Your task to perform on an android device: search for starred emails in the gmail app Image 0: 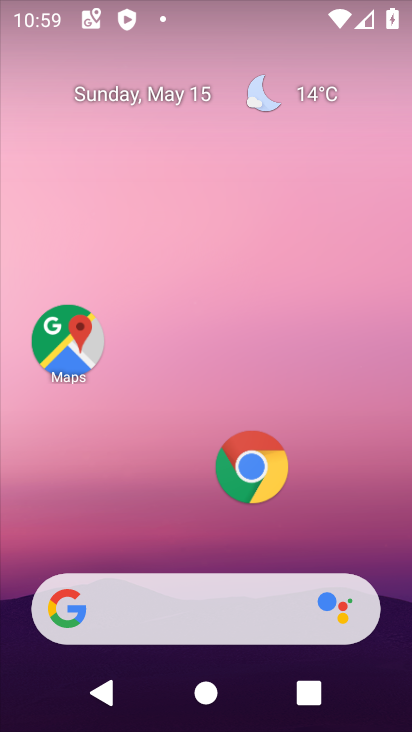
Step 0: drag from (183, 559) to (226, 108)
Your task to perform on an android device: search for starred emails in the gmail app Image 1: 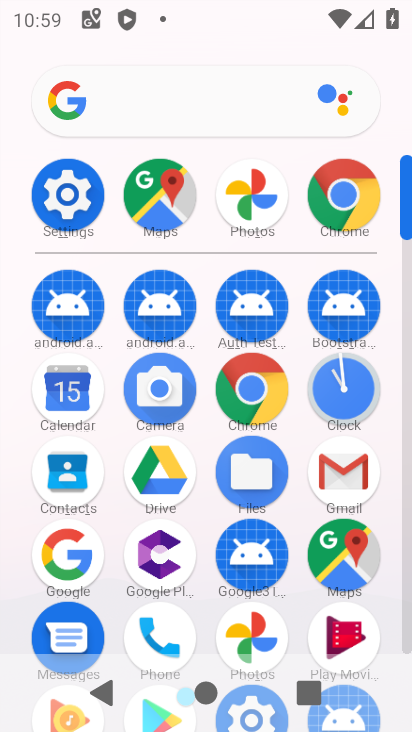
Step 1: click (348, 473)
Your task to perform on an android device: search for starred emails in the gmail app Image 2: 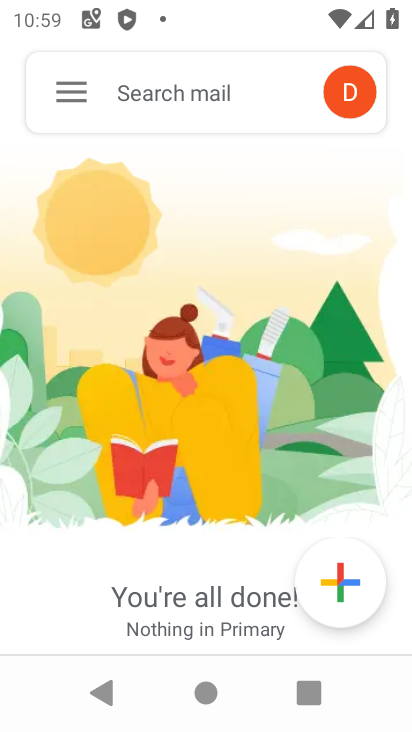
Step 2: click (77, 80)
Your task to perform on an android device: search for starred emails in the gmail app Image 3: 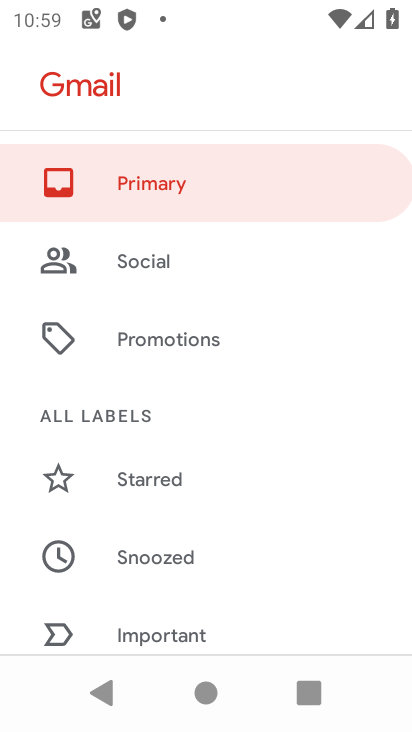
Step 3: click (191, 477)
Your task to perform on an android device: search for starred emails in the gmail app Image 4: 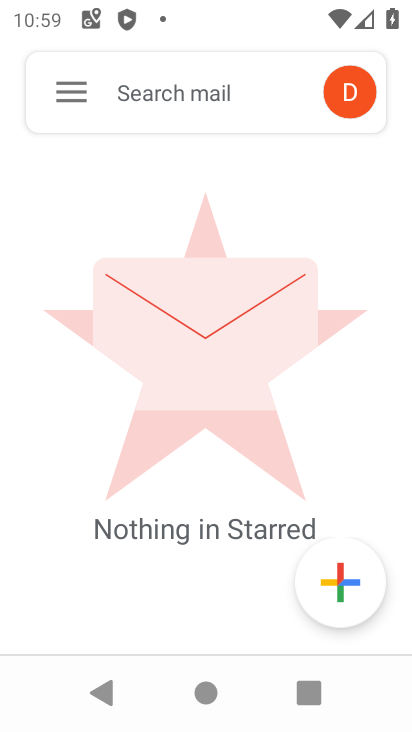
Step 4: task complete